Your task to perform on an android device: What is the recent news? Image 0: 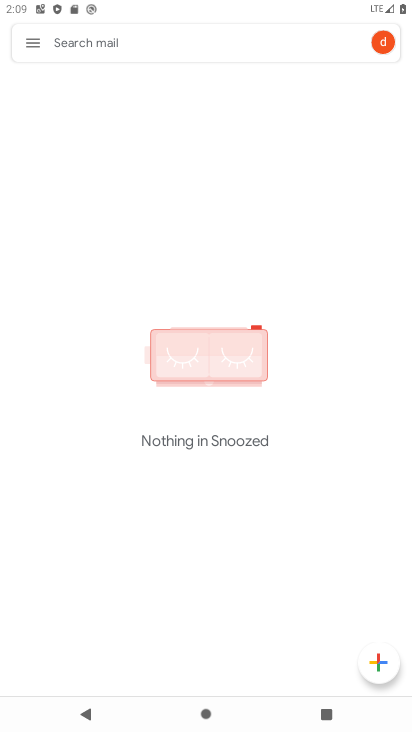
Step 0: press home button
Your task to perform on an android device: What is the recent news? Image 1: 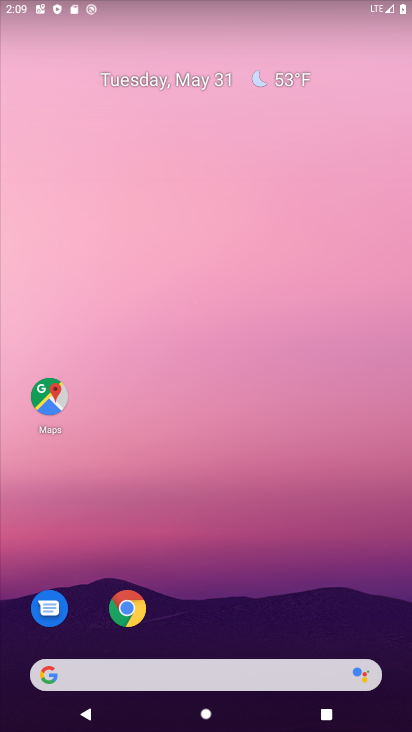
Step 1: click (153, 674)
Your task to perform on an android device: What is the recent news? Image 2: 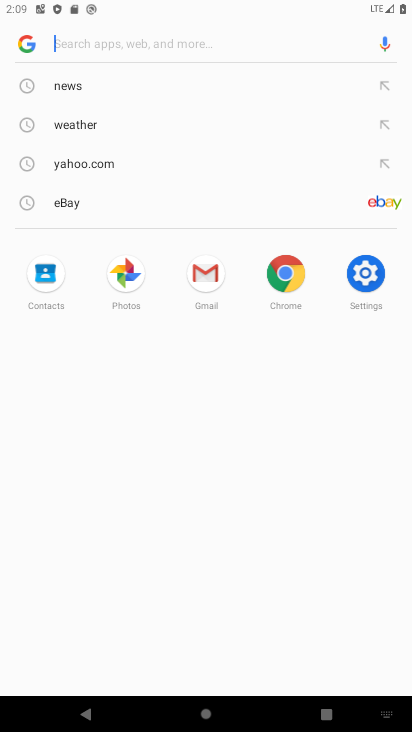
Step 2: type "recent news?"
Your task to perform on an android device: What is the recent news? Image 3: 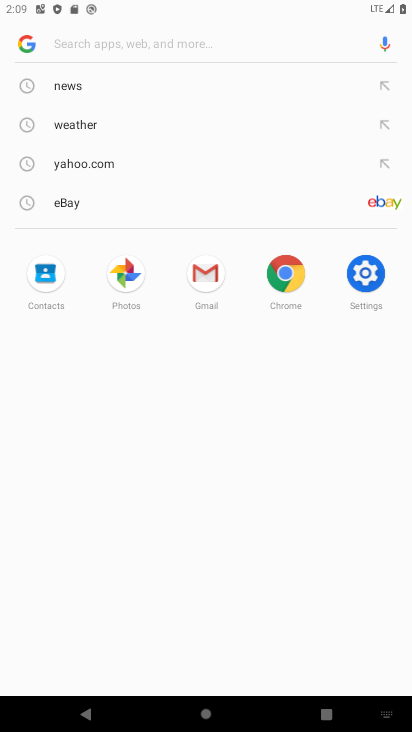
Step 3: click (189, 37)
Your task to perform on an android device: What is the recent news? Image 4: 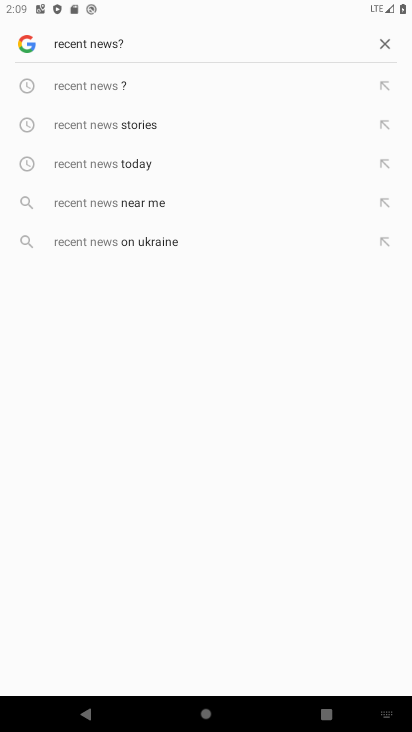
Step 4: click (73, 88)
Your task to perform on an android device: What is the recent news? Image 5: 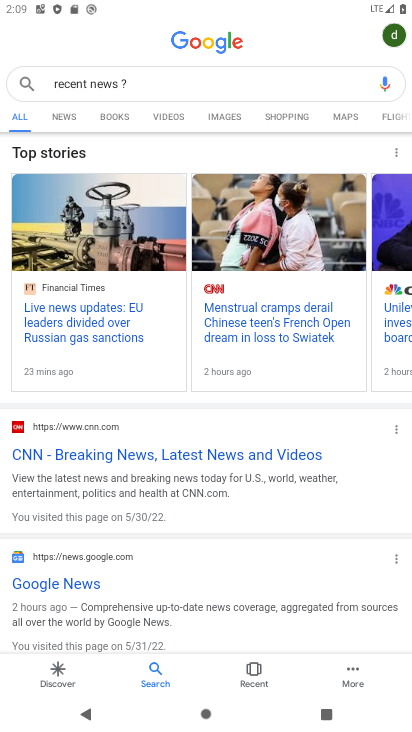
Step 5: task complete